Your task to perform on an android device: turn on notifications settings in the gmail app Image 0: 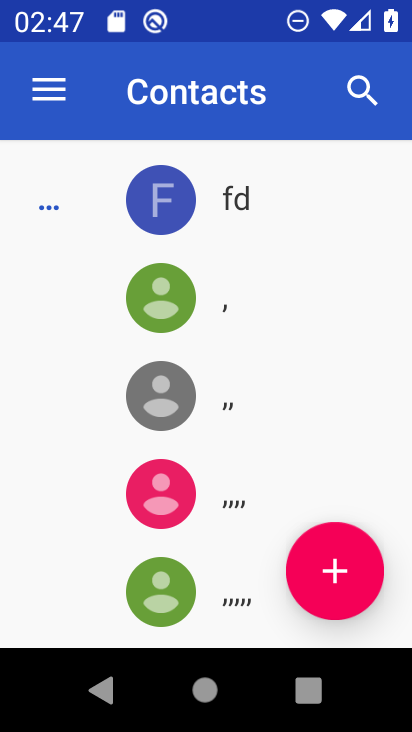
Step 0: press home button
Your task to perform on an android device: turn on notifications settings in the gmail app Image 1: 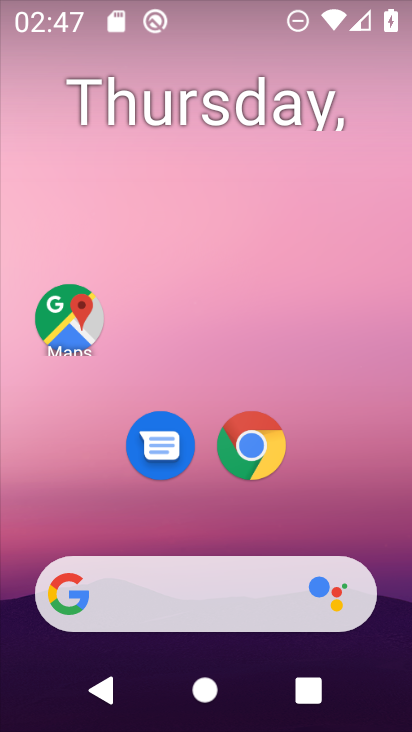
Step 1: drag from (2, 673) to (270, 103)
Your task to perform on an android device: turn on notifications settings in the gmail app Image 2: 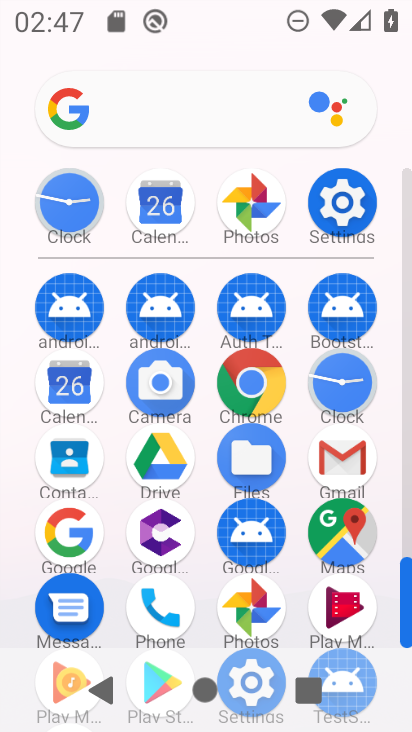
Step 2: click (339, 454)
Your task to perform on an android device: turn on notifications settings in the gmail app Image 3: 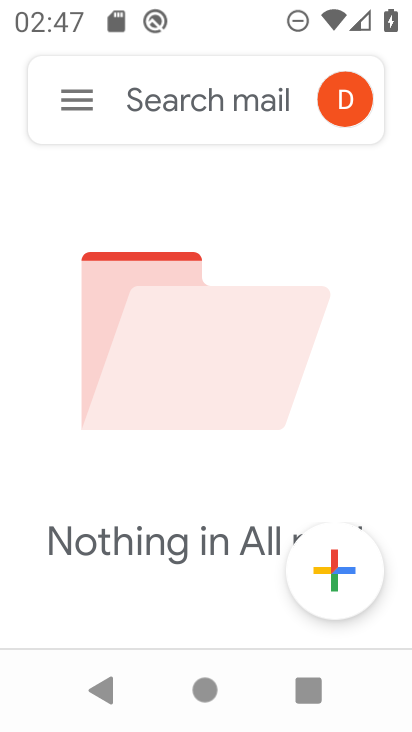
Step 3: click (86, 100)
Your task to perform on an android device: turn on notifications settings in the gmail app Image 4: 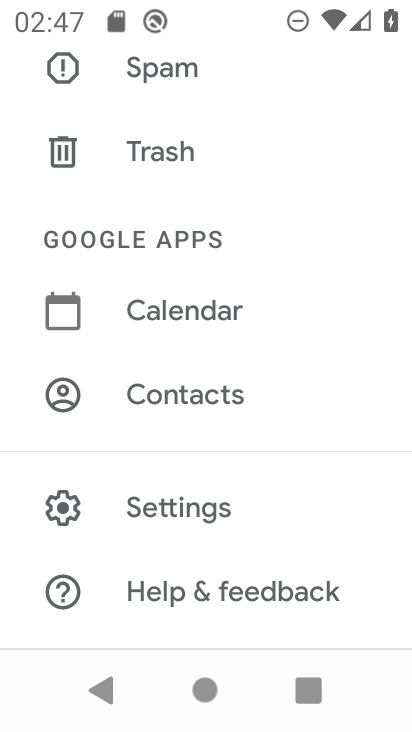
Step 4: click (159, 501)
Your task to perform on an android device: turn on notifications settings in the gmail app Image 5: 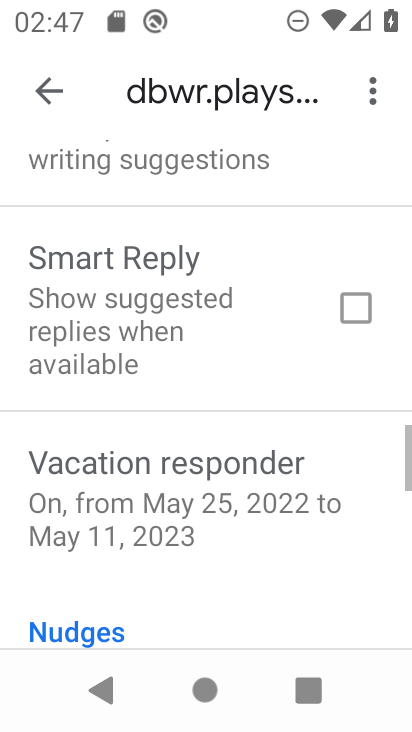
Step 5: drag from (157, 205) to (141, 666)
Your task to perform on an android device: turn on notifications settings in the gmail app Image 6: 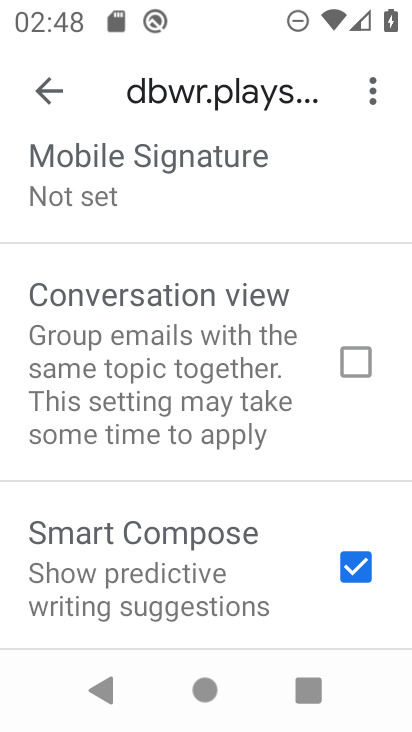
Step 6: drag from (135, 199) to (150, 641)
Your task to perform on an android device: turn on notifications settings in the gmail app Image 7: 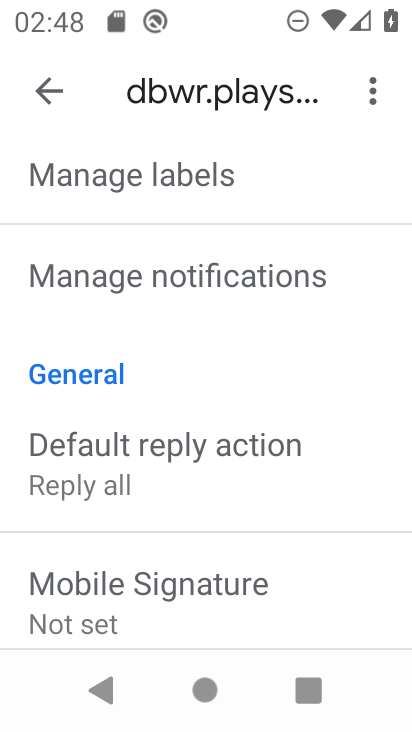
Step 7: click (127, 296)
Your task to perform on an android device: turn on notifications settings in the gmail app Image 8: 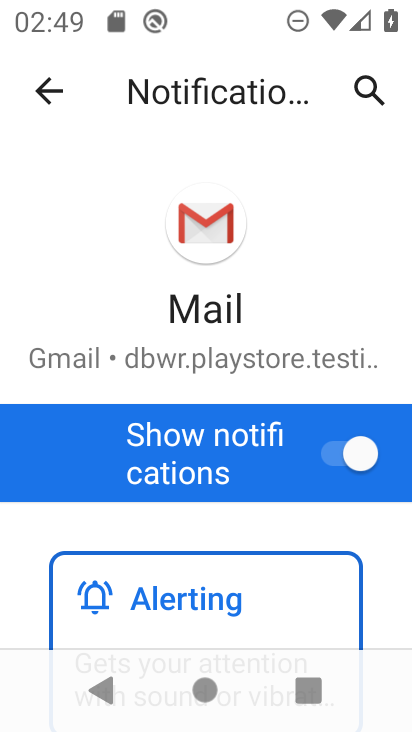
Step 8: task complete